Your task to perform on an android device: open app "Instagram" (install if not already installed) and go to login screen Image 0: 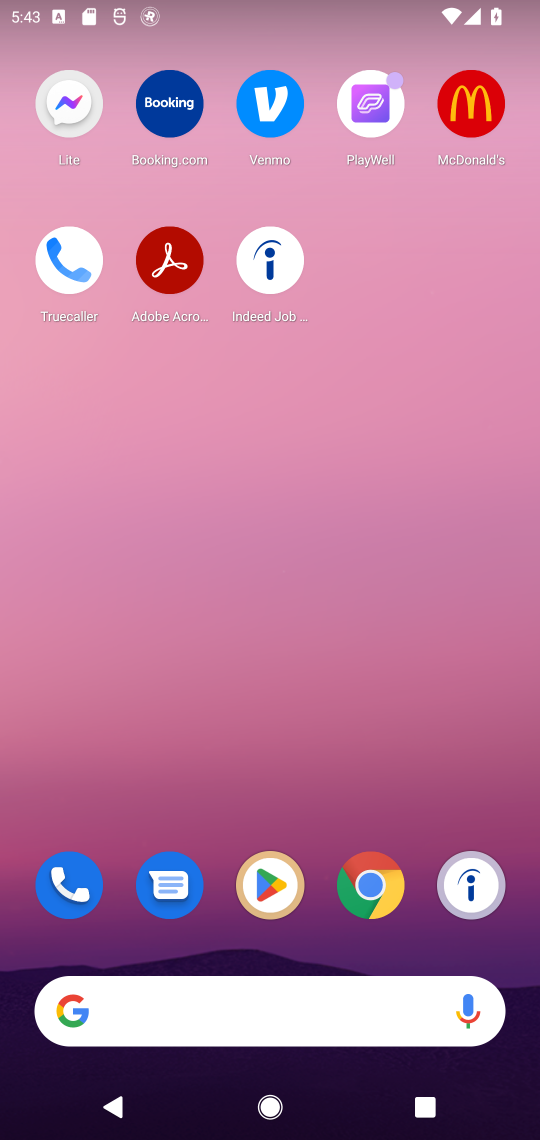
Step 0: click (285, 896)
Your task to perform on an android device: open app "Instagram" (install if not already installed) and go to login screen Image 1: 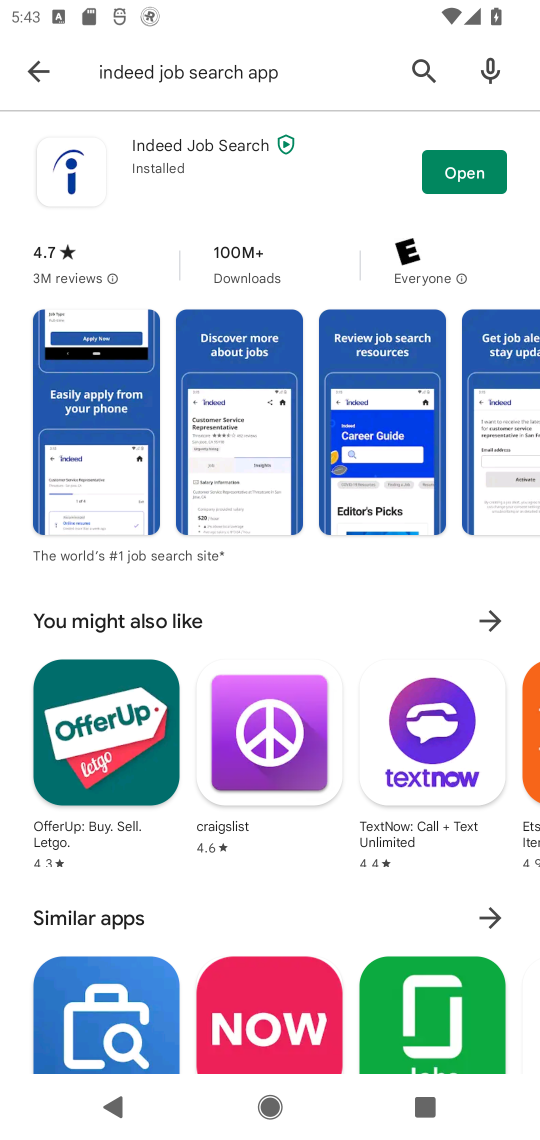
Step 1: click (425, 66)
Your task to perform on an android device: open app "Instagram" (install if not already installed) and go to login screen Image 2: 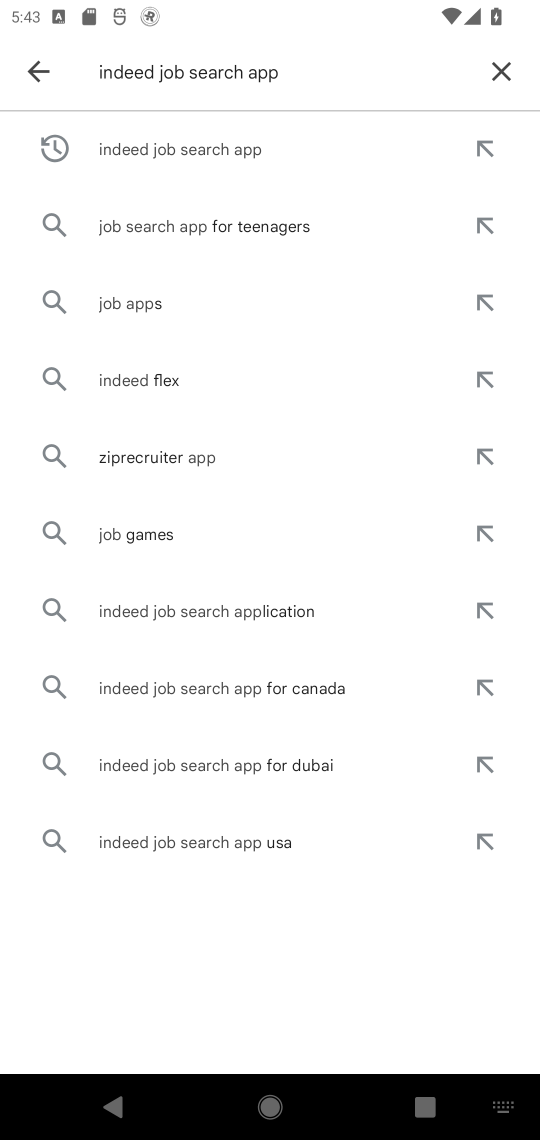
Step 2: click (506, 67)
Your task to perform on an android device: open app "Instagram" (install if not already installed) and go to login screen Image 3: 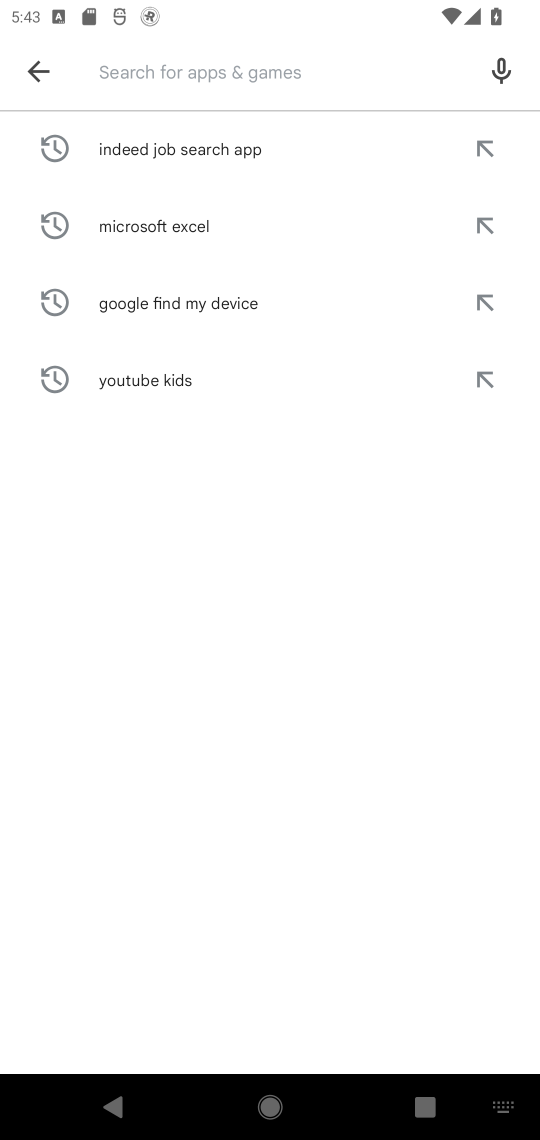
Step 3: click (149, 67)
Your task to perform on an android device: open app "Instagram" (install if not already installed) and go to login screen Image 4: 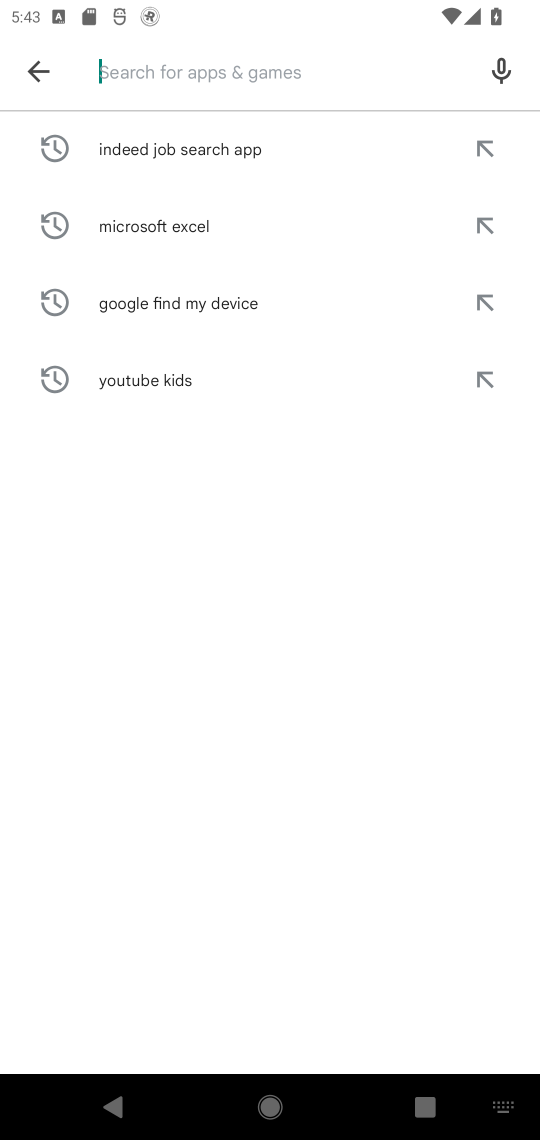
Step 4: type "Instagram"
Your task to perform on an android device: open app "Instagram" (install if not already installed) and go to login screen Image 5: 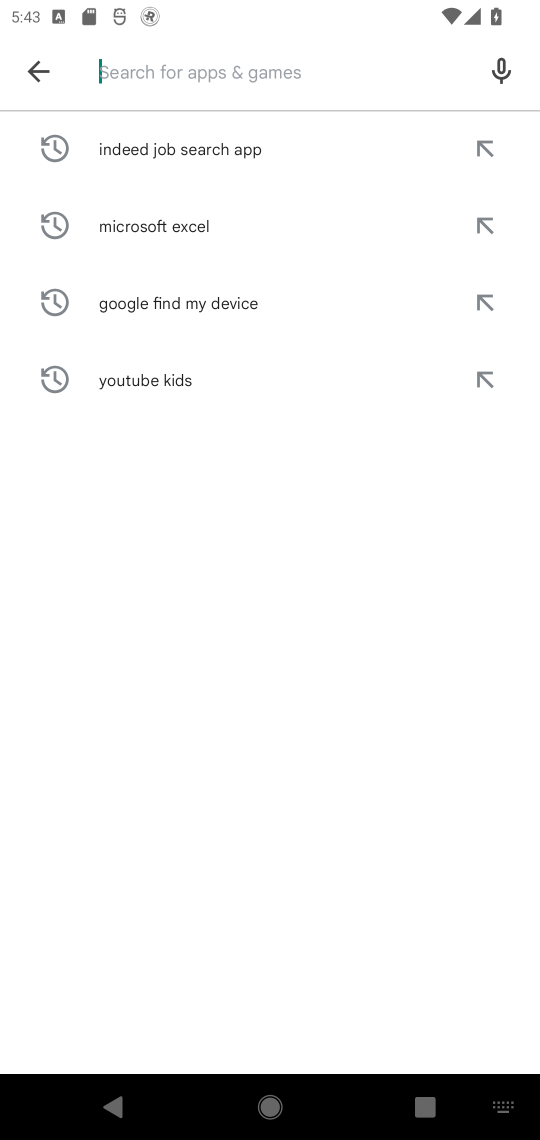
Step 5: click (330, 655)
Your task to perform on an android device: open app "Instagram" (install if not already installed) and go to login screen Image 6: 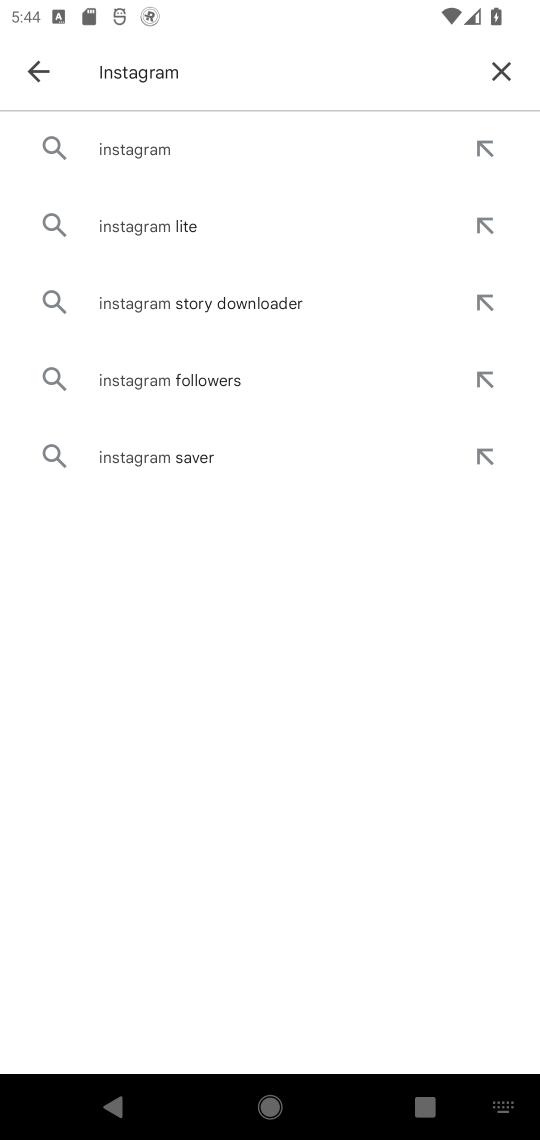
Step 6: click (197, 143)
Your task to perform on an android device: open app "Instagram" (install if not already installed) and go to login screen Image 7: 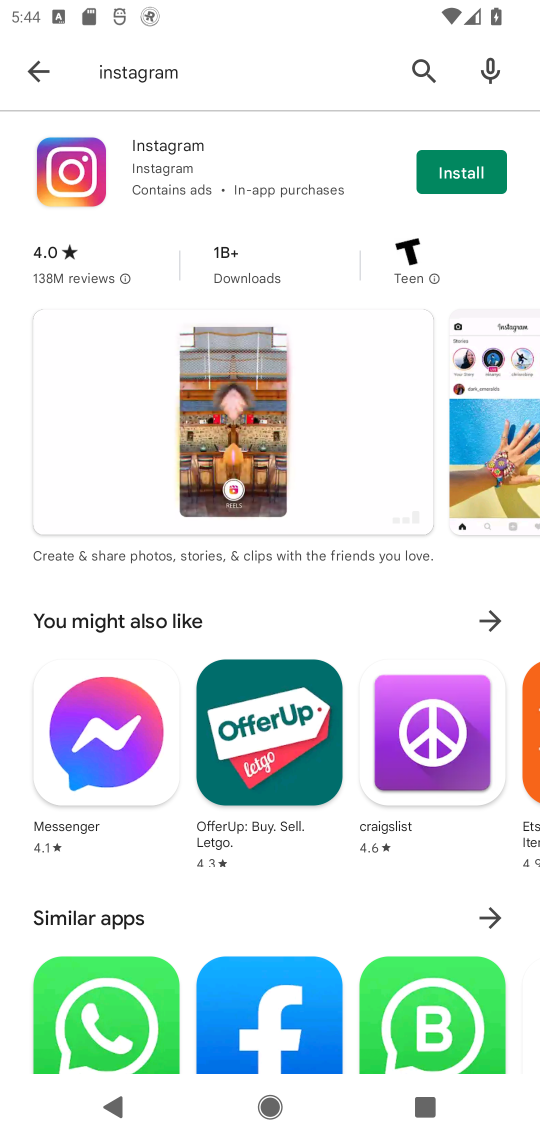
Step 7: click (453, 178)
Your task to perform on an android device: open app "Instagram" (install if not already installed) and go to login screen Image 8: 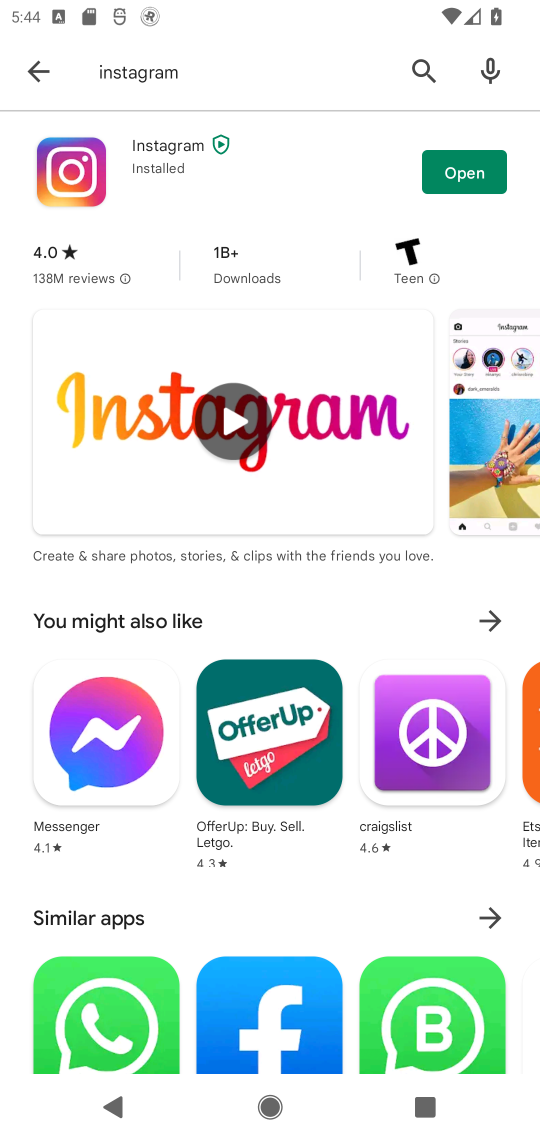
Step 8: click (465, 173)
Your task to perform on an android device: open app "Instagram" (install if not already installed) and go to login screen Image 9: 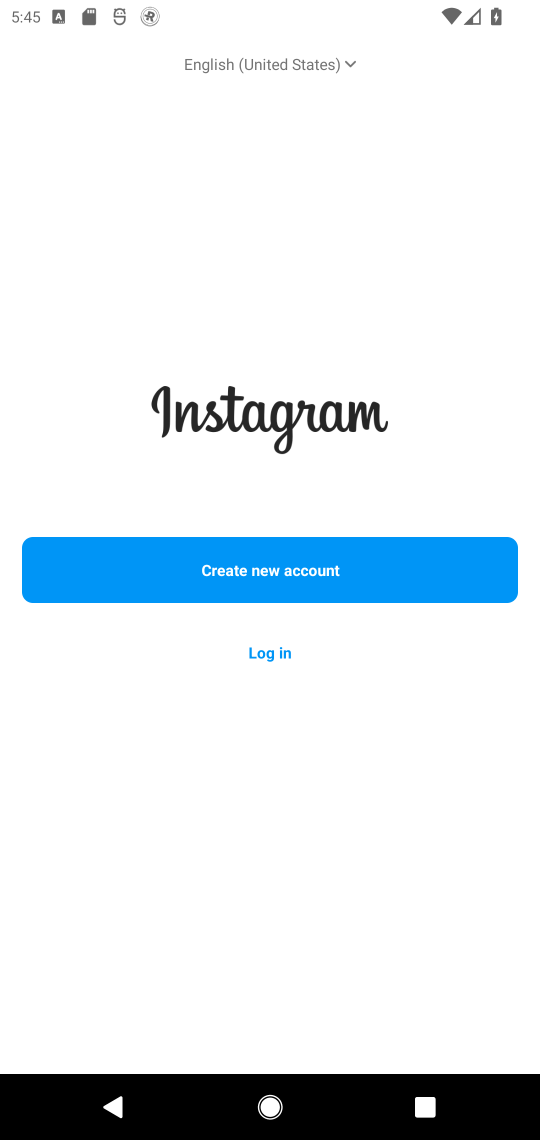
Step 9: task complete